Your task to perform on an android device: Open settings on Google Maps Image 0: 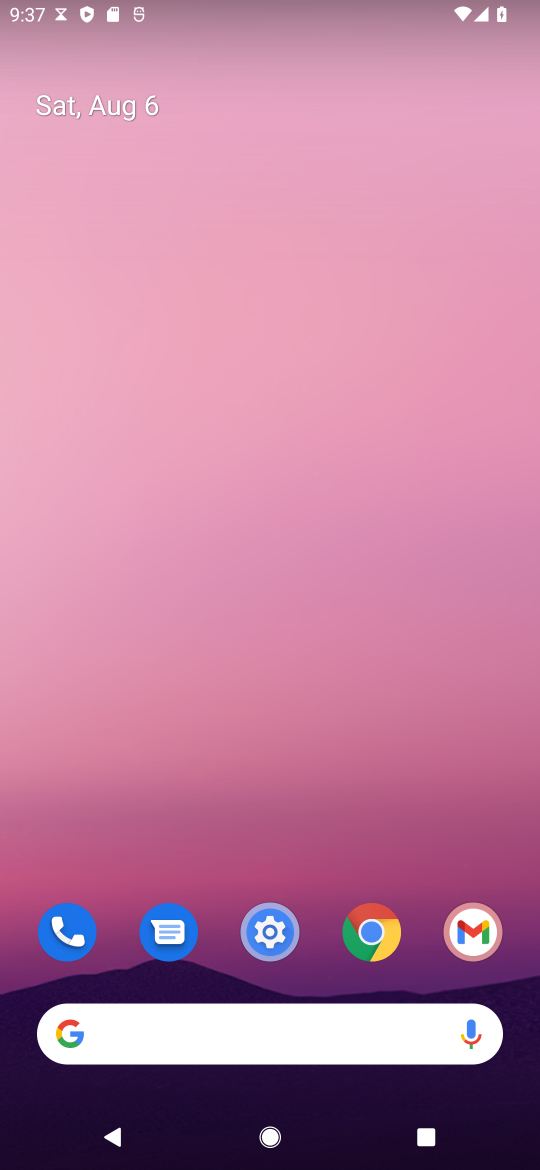
Step 0: drag from (234, 1045) to (384, 161)
Your task to perform on an android device: Open settings on Google Maps Image 1: 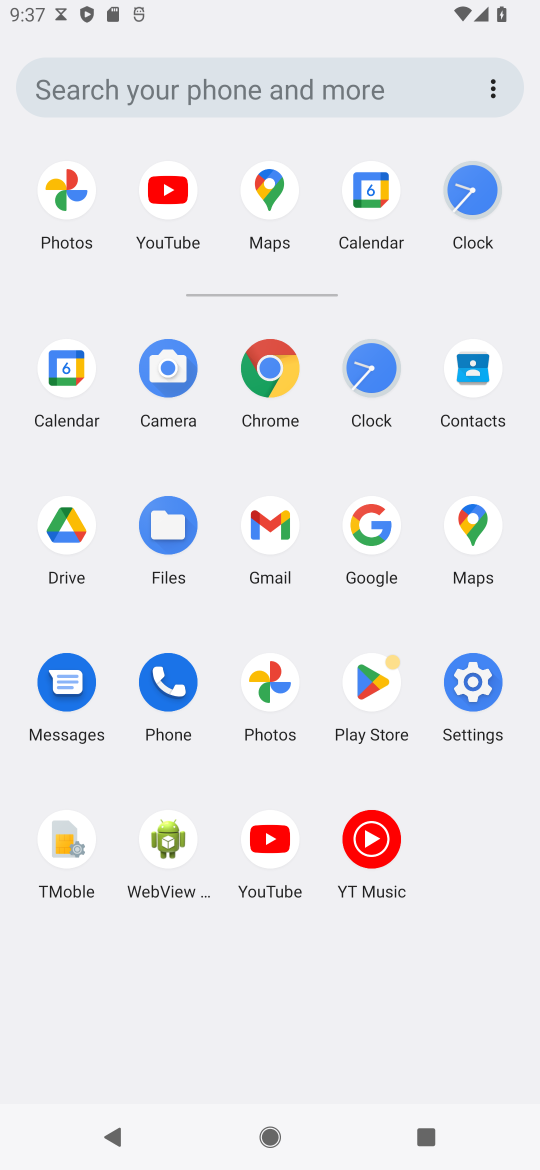
Step 1: click (475, 519)
Your task to perform on an android device: Open settings on Google Maps Image 2: 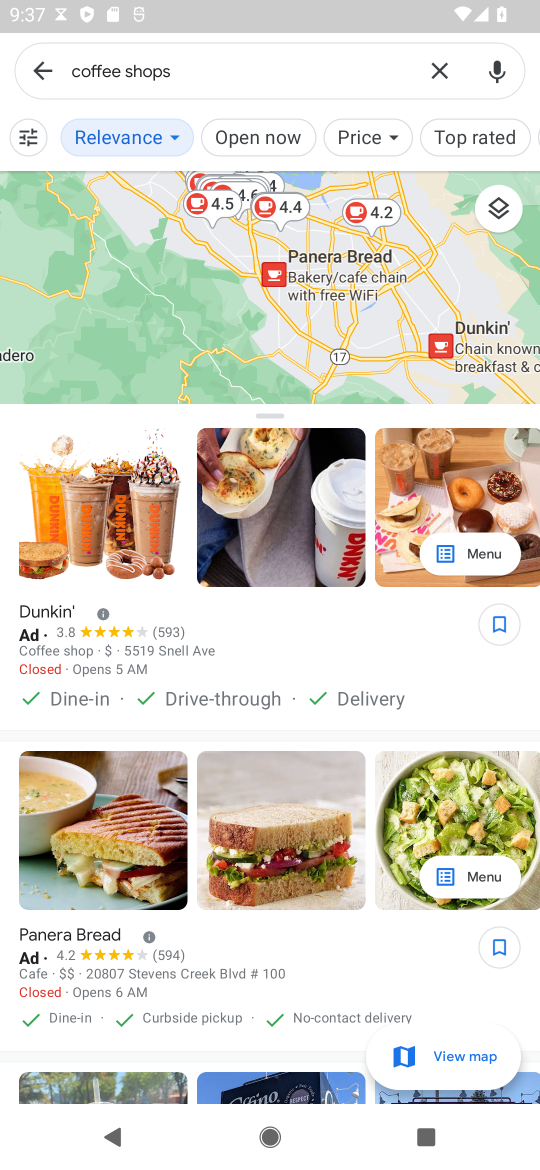
Step 2: click (444, 76)
Your task to perform on an android device: Open settings on Google Maps Image 3: 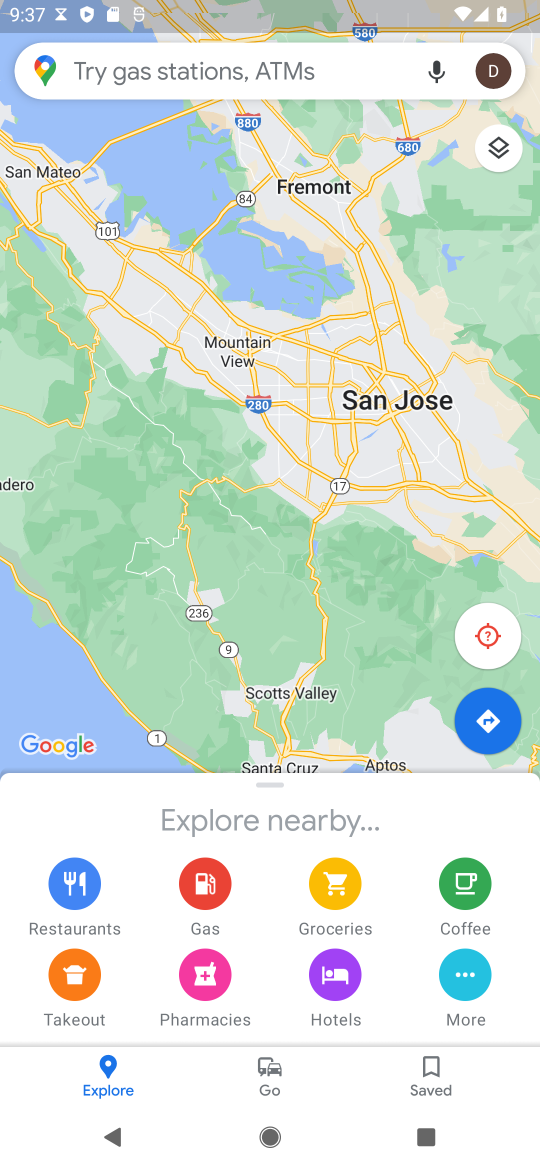
Step 3: click (492, 74)
Your task to perform on an android device: Open settings on Google Maps Image 4: 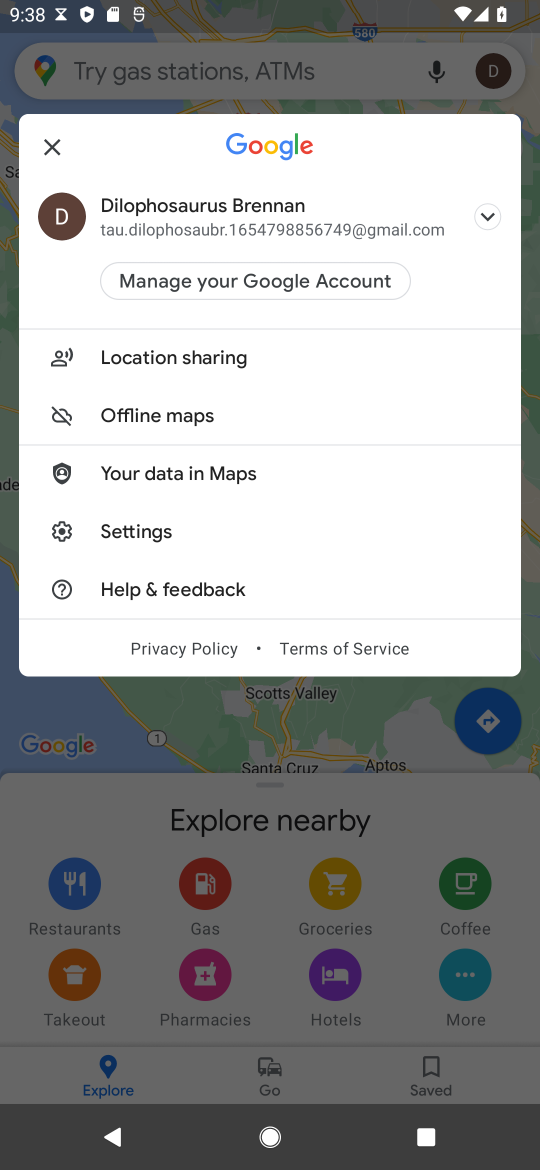
Step 4: click (157, 528)
Your task to perform on an android device: Open settings on Google Maps Image 5: 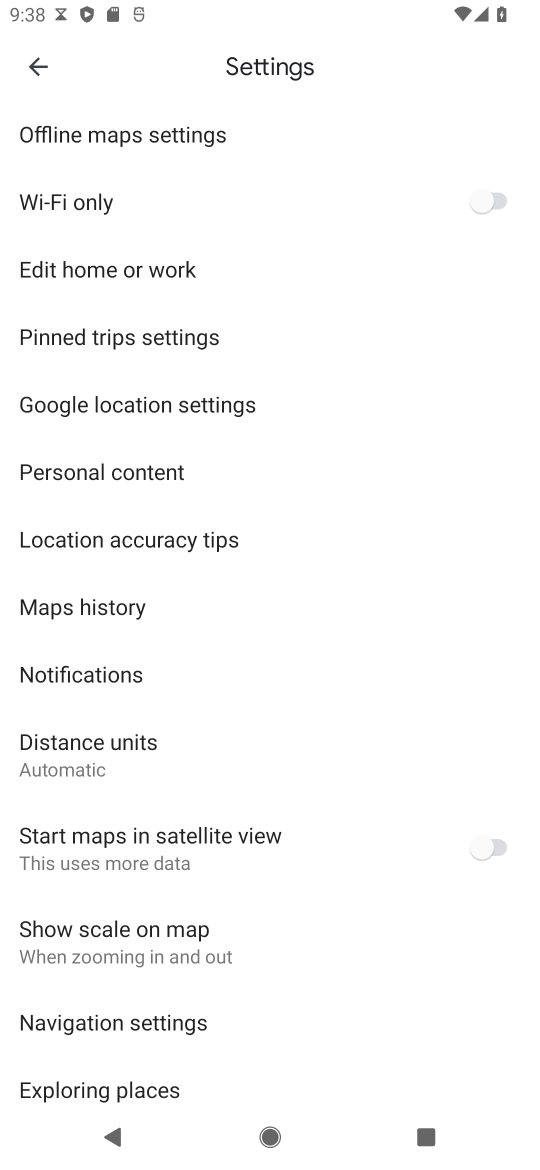
Step 5: task complete